Your task to perform on an android device: see tabs open on other devices in the chrome app Image 0: 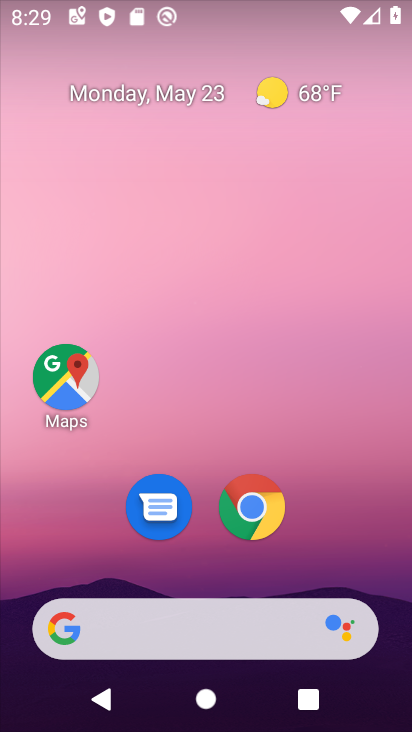
Step 0: click (264, 531)
Your task to perform on an android device: see tabs open on other devices in the chrome app Image 1: 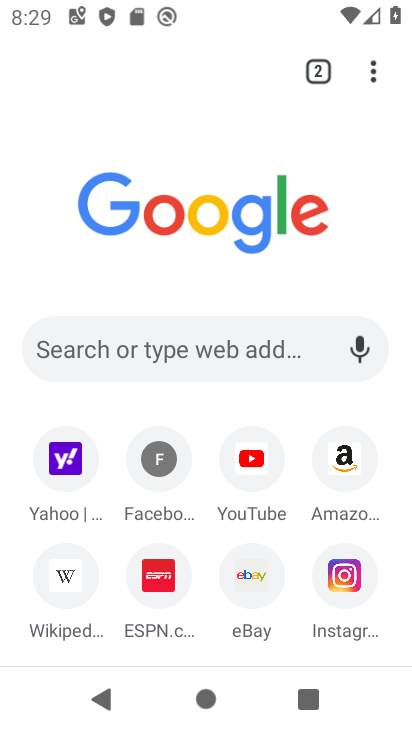
Step 1: task complete